Your task to perform on an android device: Empty the shopping cart on bestbuy. Image 0: 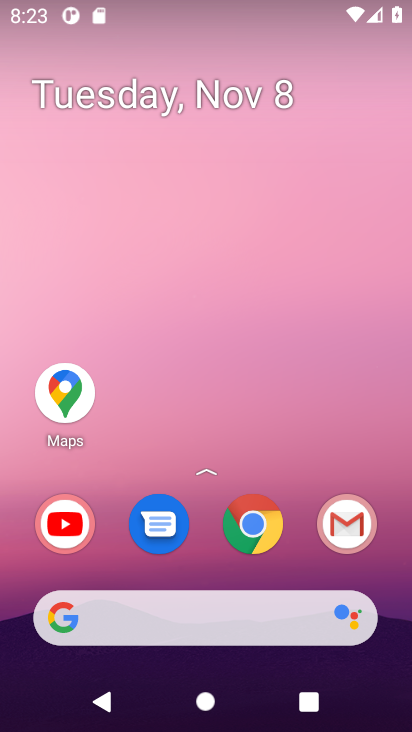
Step 0: click (245, 523)
Your task to perform on an android device: Empty the shopping cart on bestbuy. Image 1: 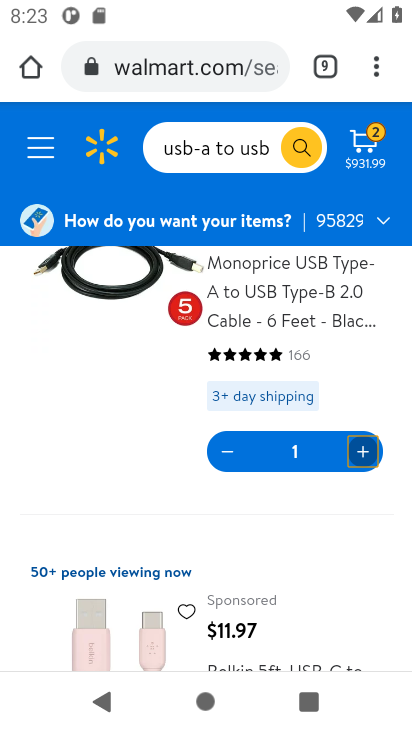
Step 1: click (179, 74)
Your task to perform on an android device: Empty the shopping cart on bestbuy. Image 2: 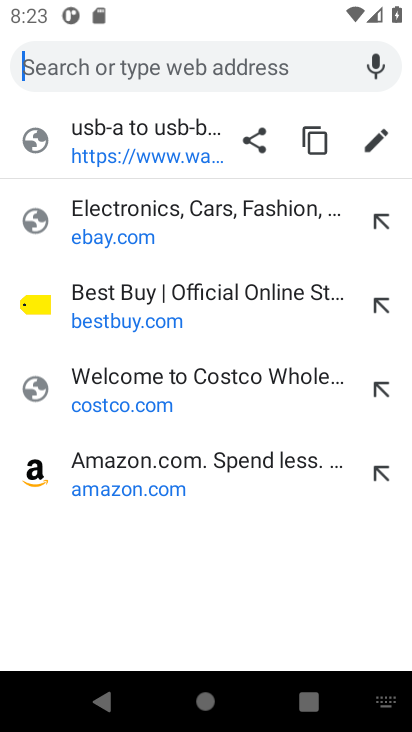
Step 2: click (104, 322)
Your task to perform on an android device: Empty the shopping cart on bestbuy. Image 3: 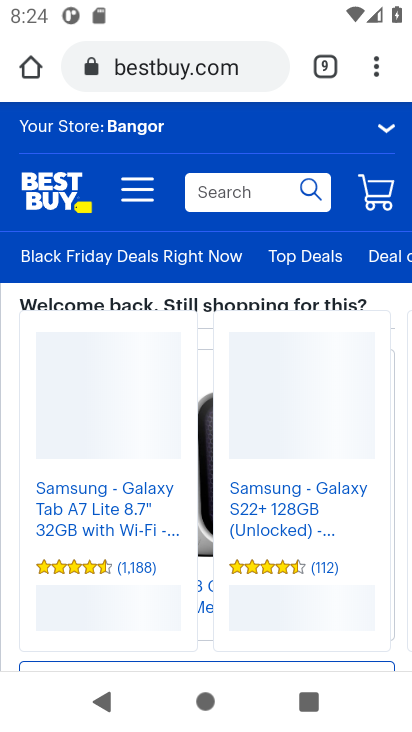
Step 3: click (380, 200)
Your task to perform on an android device: Empty the shopping cart on bestbuy. Image 4: 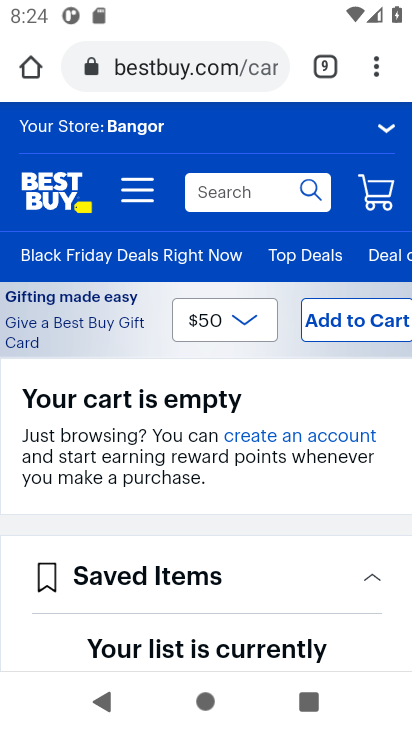
Step 4: task complete